Your task to perform on an android device: Open CNN.com Image 0: 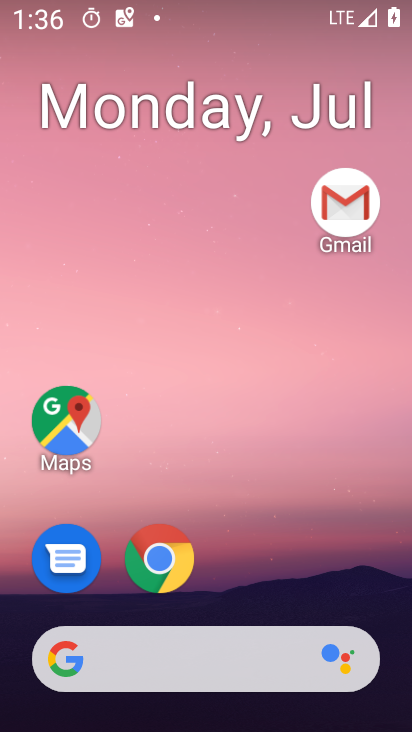
Step 0: drag from (350, 586) to (378, 218)
Your task to perform on an android device: Open CNN.com Image 1: 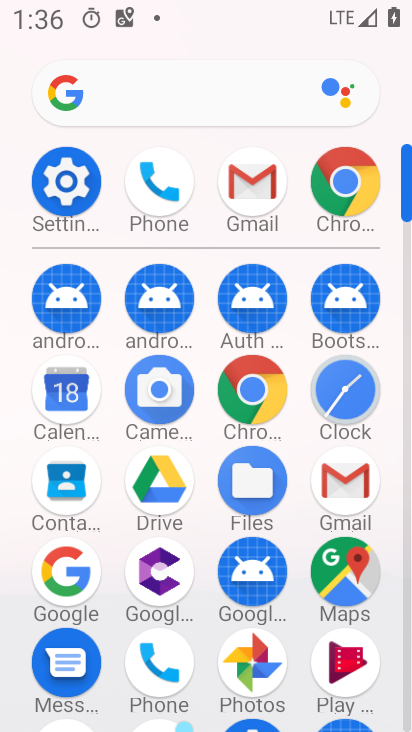
Step 1: click (239, 385)
Your task to perform on an android device: Open CNN.com Image 2: 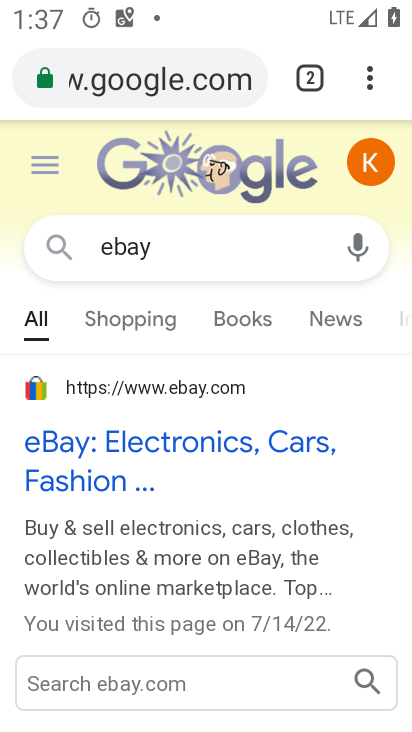
Step 2: click (200, 89)
Your task to perform on an android device: Open CNN.com Image 3: 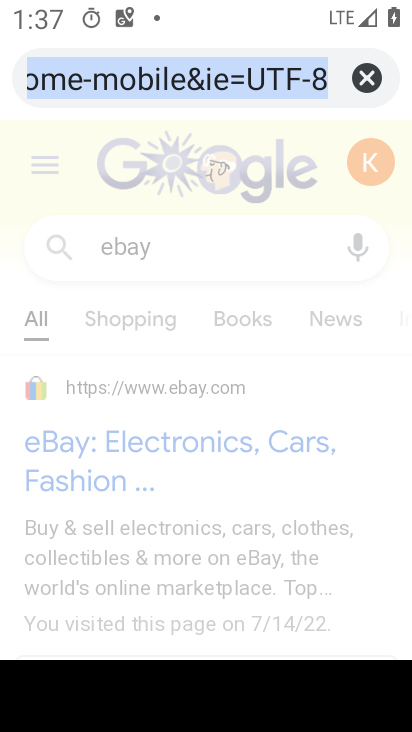
Step 3: type "cnn.com"
Your task to perform on an android device: Open CNN.com Image 4: 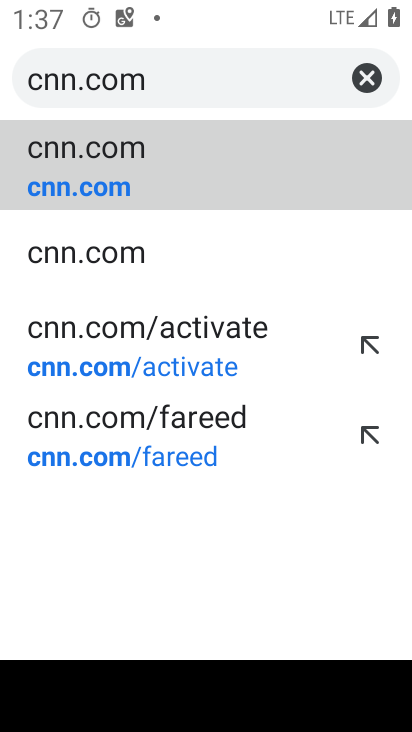
Step 4: click (348, 170)
Your task to perform on an android device: Open CNN.com Image 5: 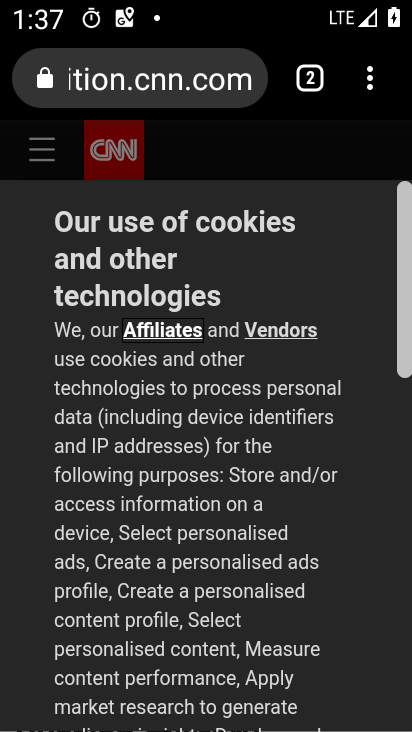
Step 5: task complete